Your task to perform on an android device: Open Maps and search for coffee Image 0: 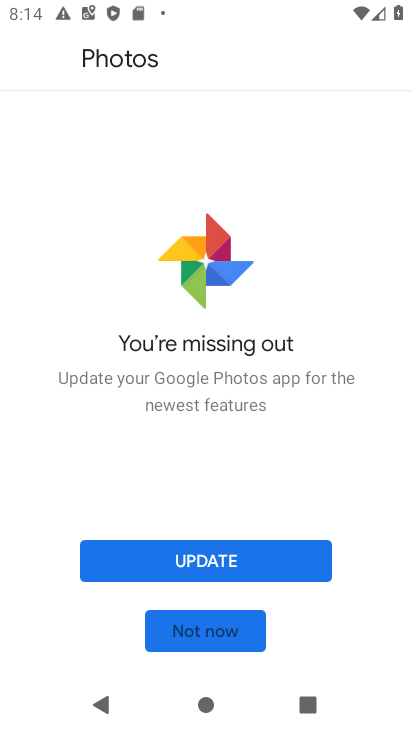
Step 0: press home button
Your task to perform on an android device: Open Maps and search for coffee Image 1: 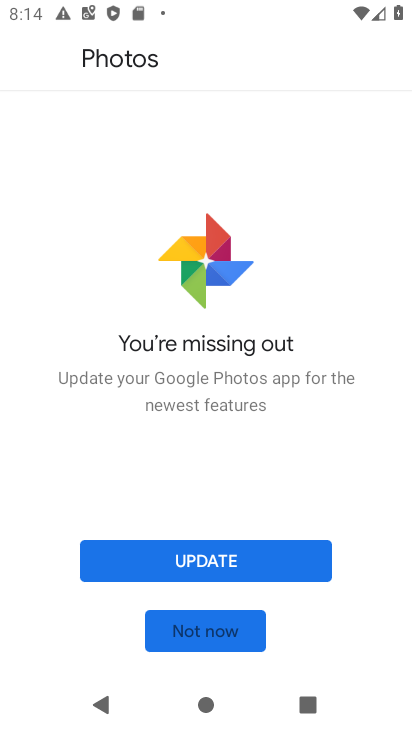
Step 1: press home button
Your task to perform on an android device: Open Maps and search for coffee Image 2: 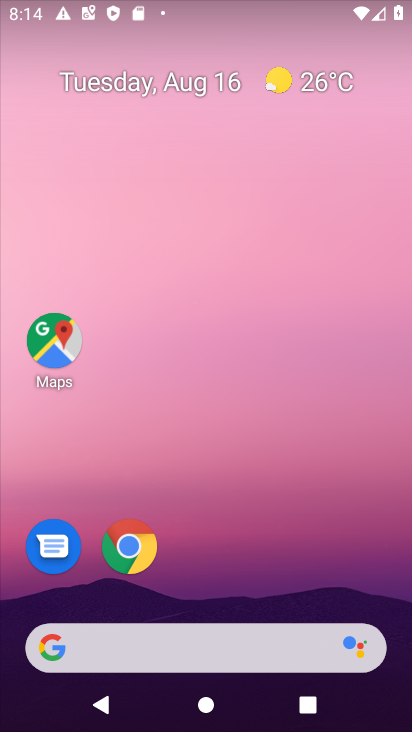
Step 2: click (51, 333)
Your task to perform on an android device: Open Maps and search for coffee Image 3: 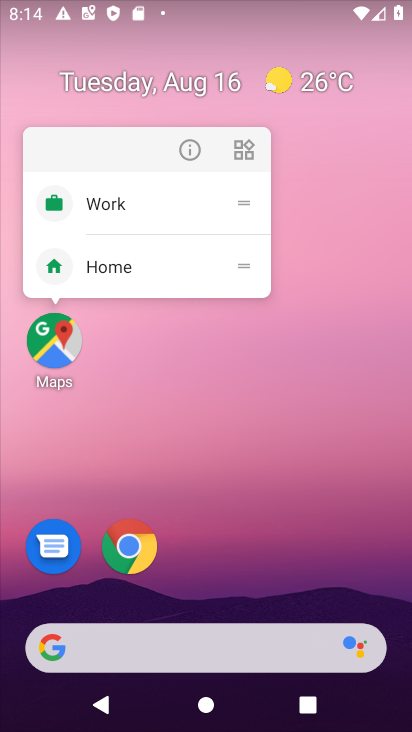
Step 3: click (56, 338)
Your task to perform on an android device: Open Maps and search for coffee Image 4: 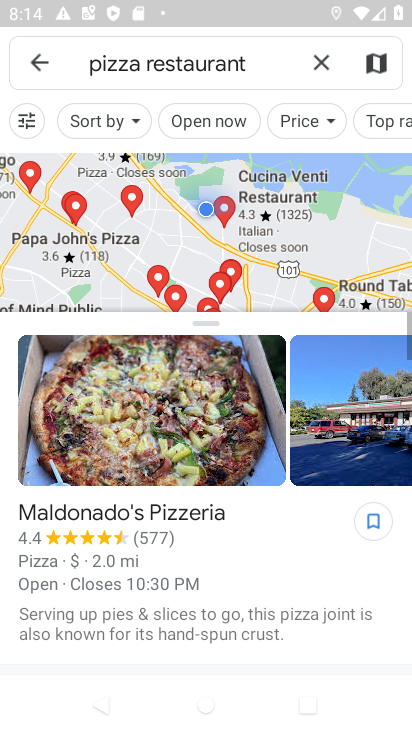
Step 4: click (313, 55)
Your task to perform on an android device: Open Maps and search for coffee Image 5: 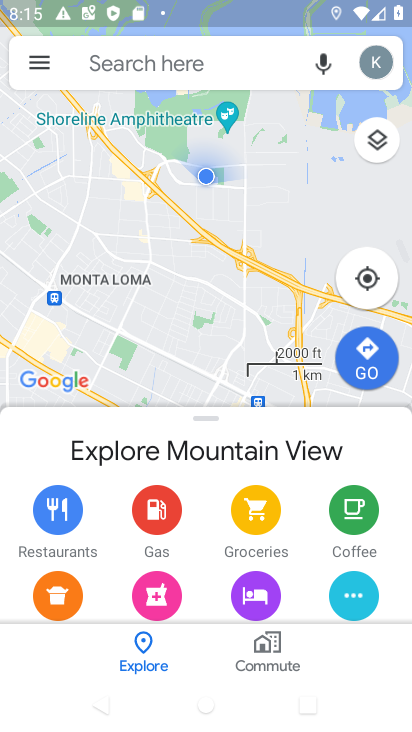
Step 5: click (159, 64)
Your task to perform on an android device: Open Maps and search for coffee Image 6: 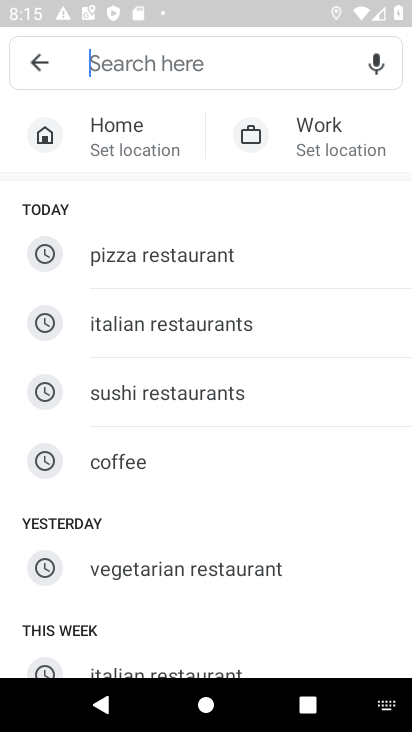
Step 6: click (127, 460)
Your task to perform on an android device: Open Maps and search for coffee Image 7: 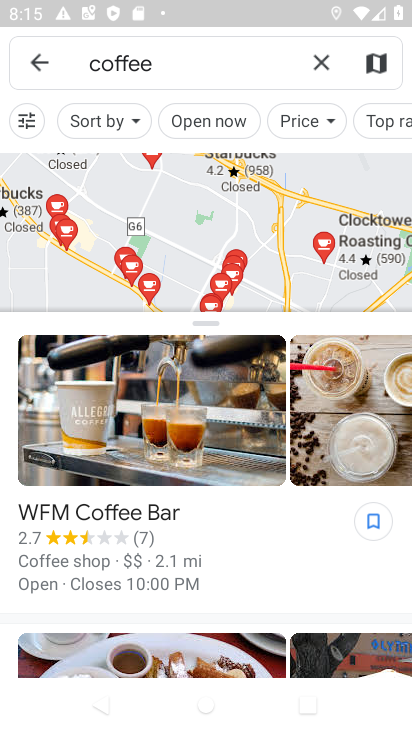
Step 7: task complete